Your task to perform on an android device: Go to battery settings Image 0: 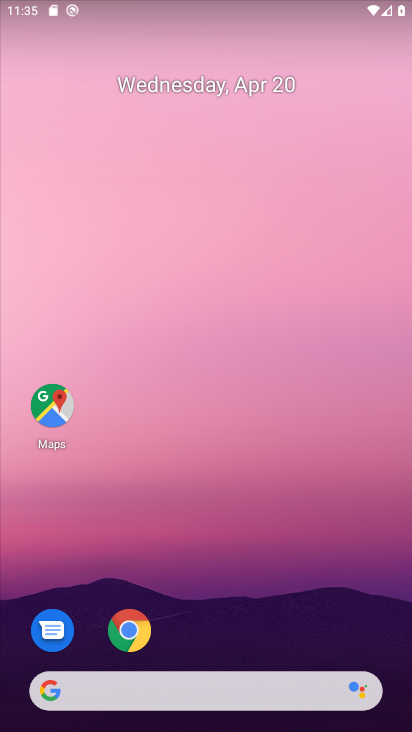
Step 0: drag from (235, 658) to (323, 272)
Your task to perform on an android device: Go to battery settings Image 1: 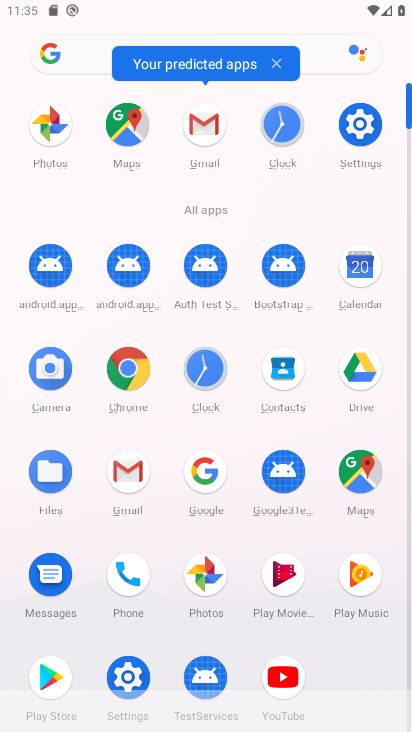
Step 1: click (354, 137)
Your task to perform on an android device: Go to battery settings Image 2: 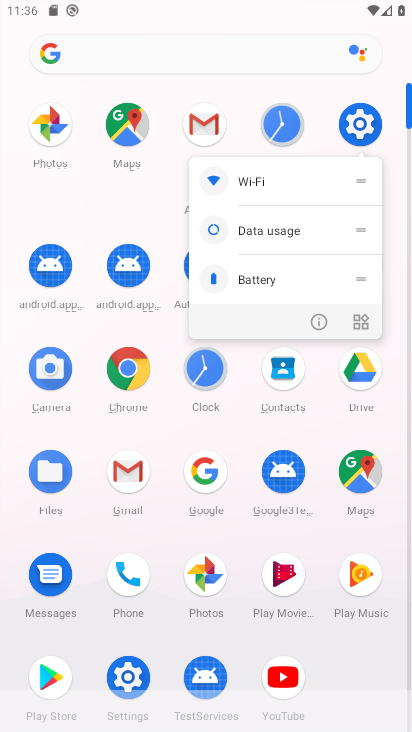
Step 2: click (355, 138)
Your task to perform on an android device: Go to battery settings Image 3: 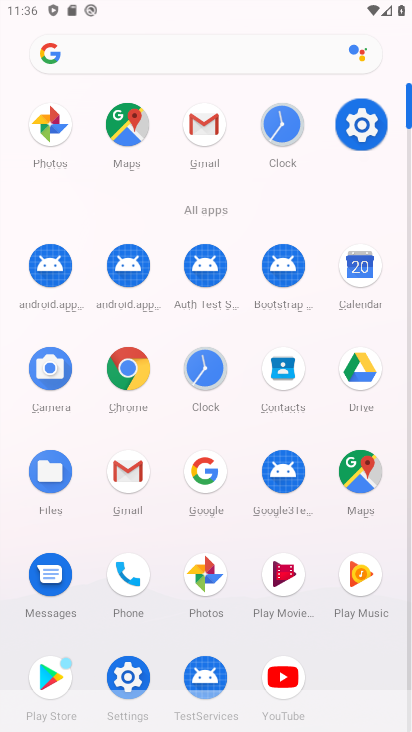
Step 3: click (359, 117)
Your task to perform on an android device: Go to battery settings Image 4: 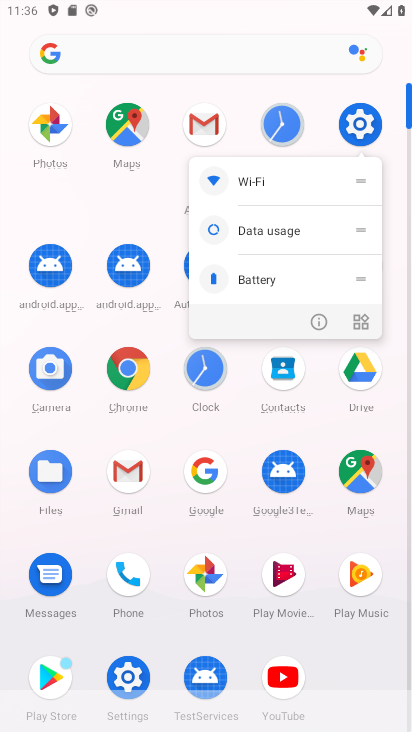
Step 4: click (361, 134)
Your task to perform on an android device: Go to battery settings Image 5: 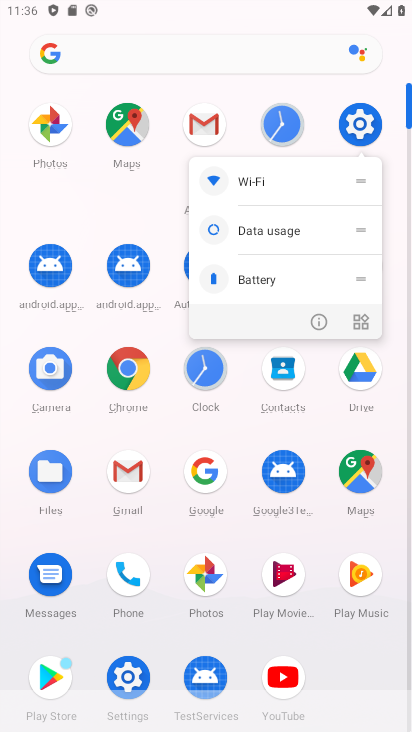
Step 5: click (363, 117)
Your task to perform on an android device: Go to battery settings Image 6: 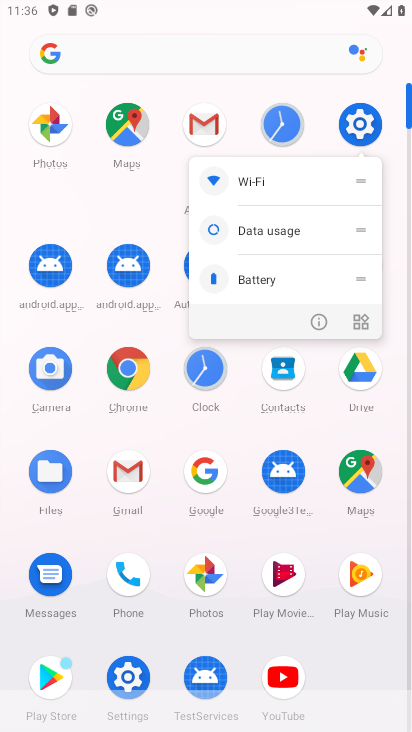
Step 6: click (363, 133)
Your task to perform on an android device: Go to battery settings Image 7: 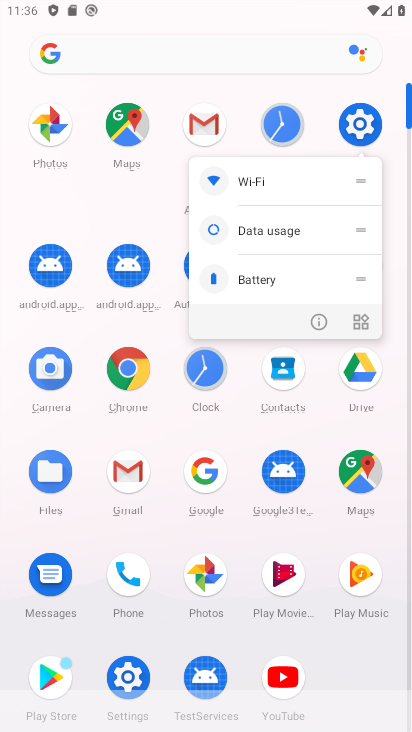
Step 7: click (366, 131)
Your task to perform on an android device: Go to battery settings Image 8: 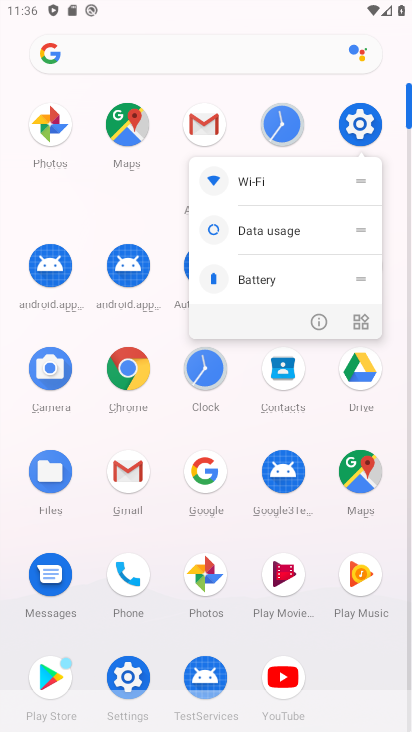
Step 8: click (368, 118)
Your task to perform on an android device: Go to battery settings Image 9: 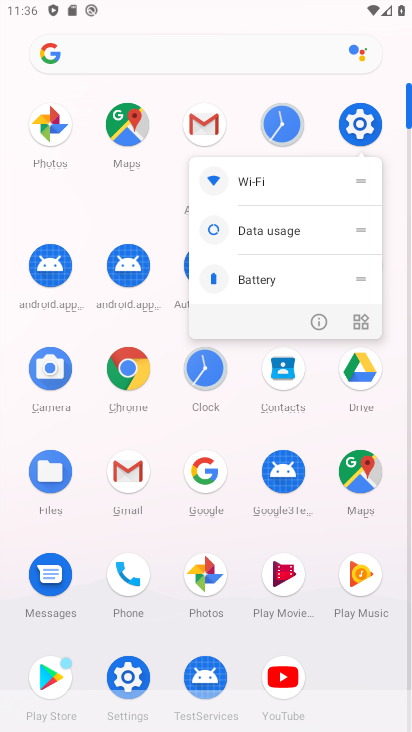
Step 9: click (367, 127)
Your task to perform on an android device: Go to battery settings Image 10: 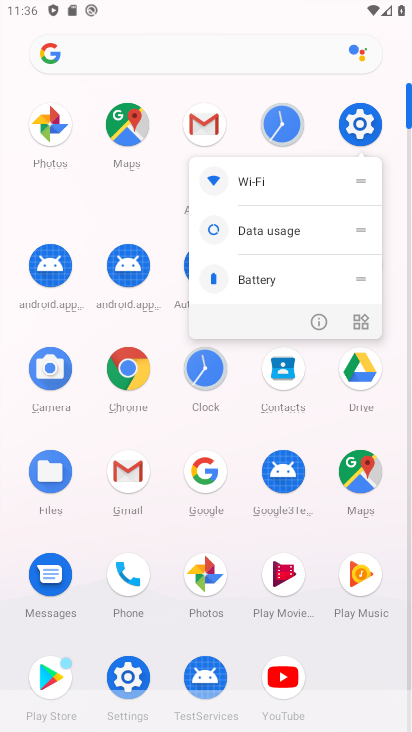
Step 10: click (366, 128)
Your task to perform on an android device: Go to battery settings Image 11: 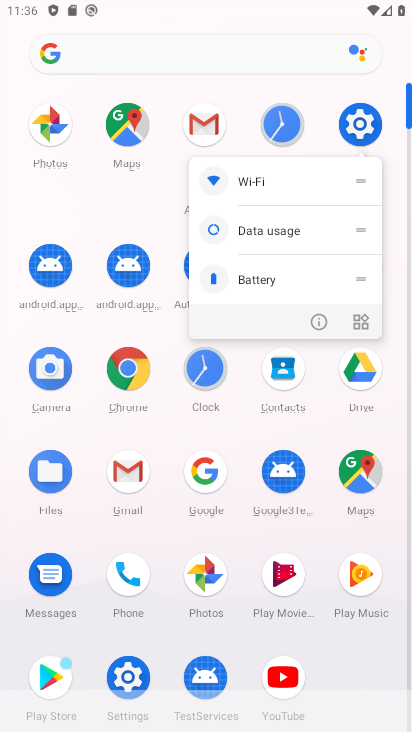
Step 11: click (356, 117)
Your task to perform on an android device: Go to battery settings Image 12: 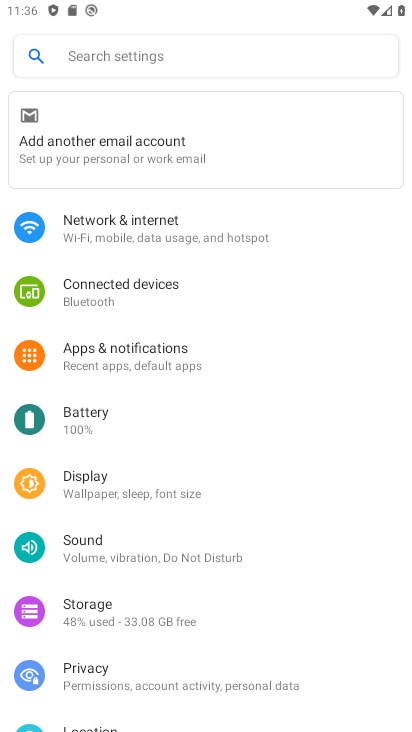
Step 12: click (134, 423)
Your task to perform on an android device: Go to battery settings Image 13: 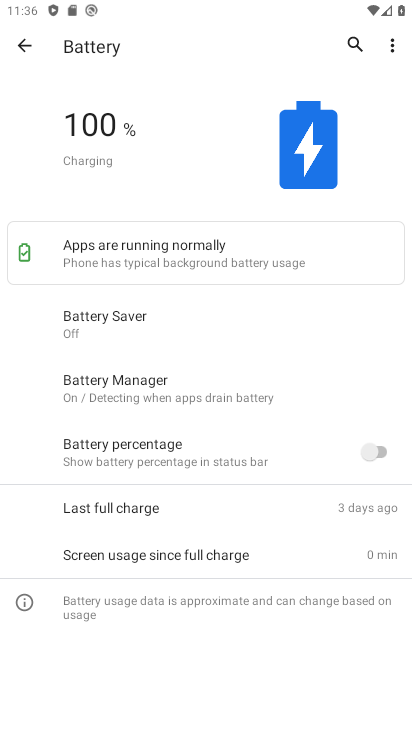
Step 13: task complete